Your task to perform on an android device: turn off sleep mode Image 0: 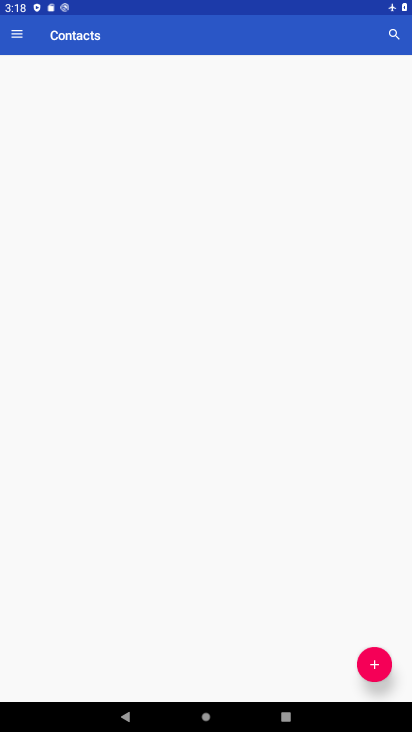
Step 0: drag from (323, 673) to (318, 96)
Your task to perform on an android device: turn off sleep mode Image 1: 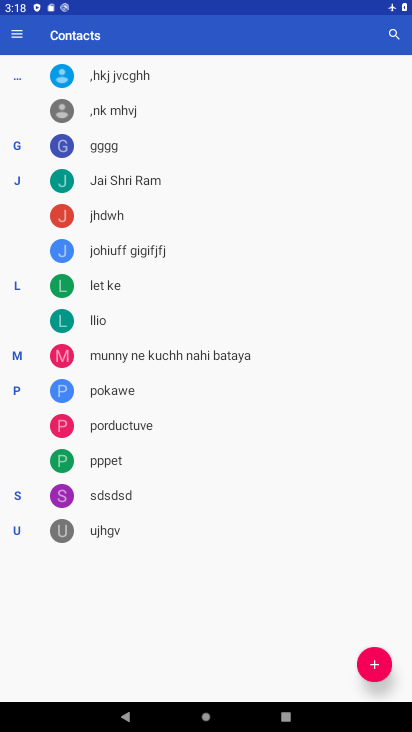
Step 1: press back button
Your task to perform on an android device: turn off sleep mode Image 2: 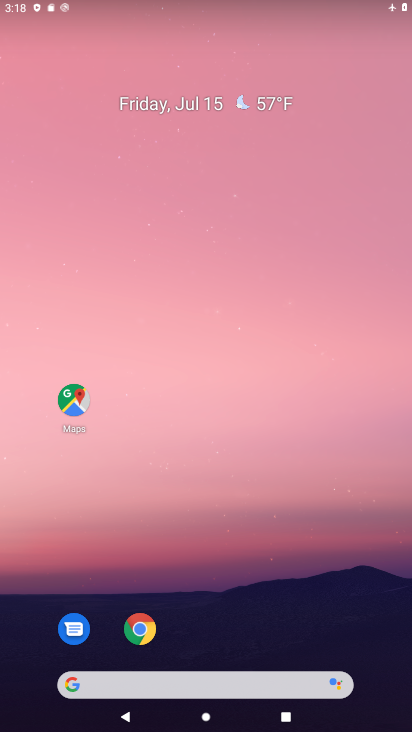
Step 2: drag from (258, 670) to (221, 63)
Your task to perform on an android device: turn off sleep mode Image 3: 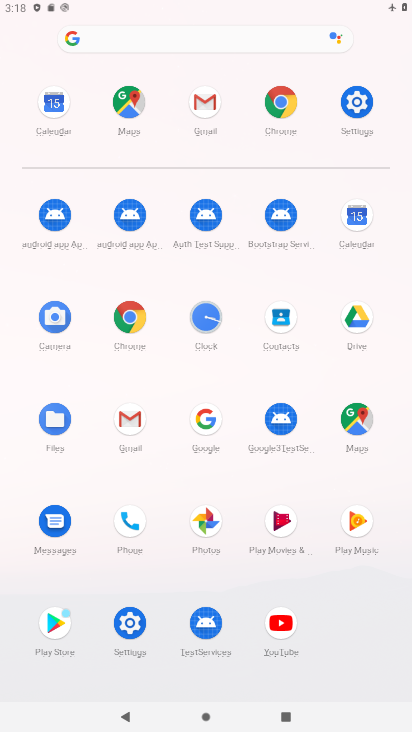
Step 3: click (352, 106)
Your task to perform on an android device: turn off sleep mode Image 4: 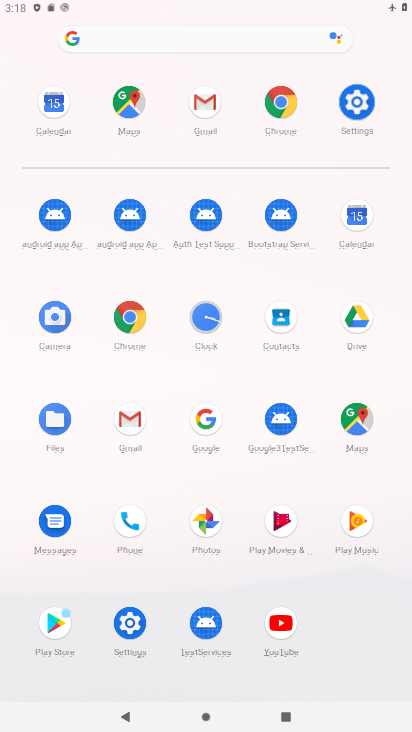
Step 4: click (359, 107)
Your task to perform on an android device: turn off sleep mode Image 5: 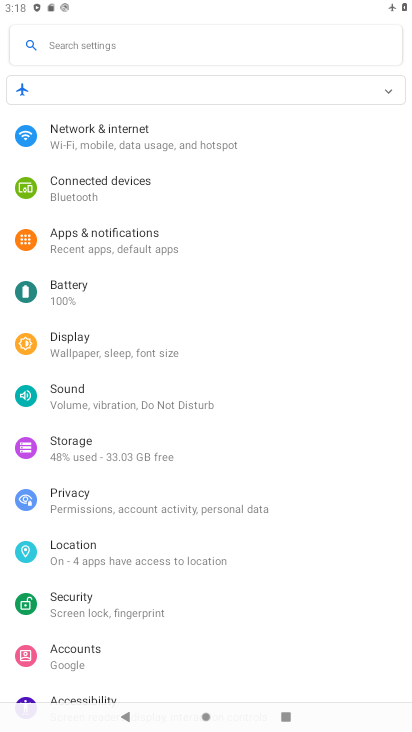
Step 5: click (77, 353)
Your task to perform on an android device: turn off sleep mode Image 6: 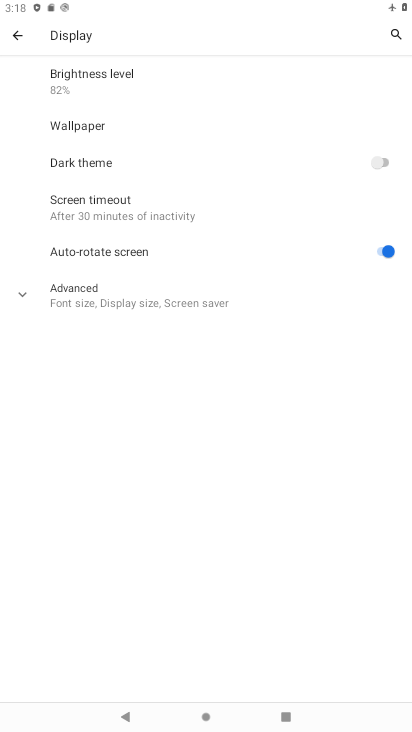
Step 6: click (89, 207)
Your task to perform on an android device: turn off sleep mode Image 7: 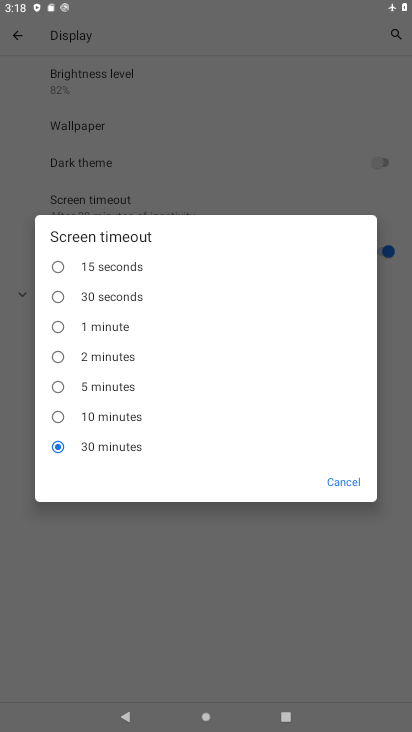
Step 7: click (195, 107)
Your task to perform on an android device: turn off sleep mode Image 8: 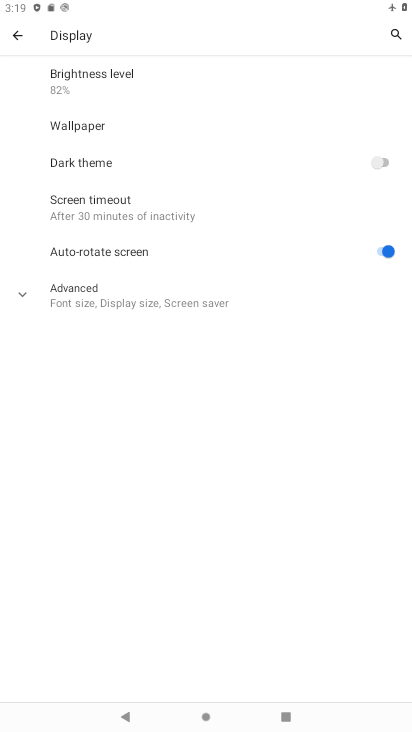
Step 8: click (91, 210)
Your task to perform on an android device: turn off sleep mode Image 9: 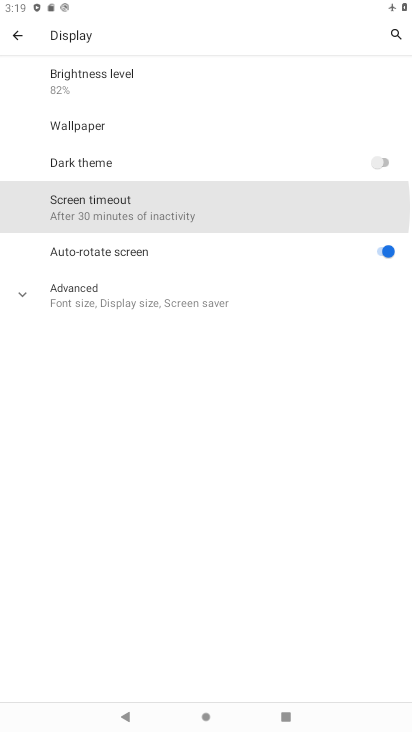
Step 9: click (97, 212)
Your task to perform on an android device: turn off sleep mode Image 10: 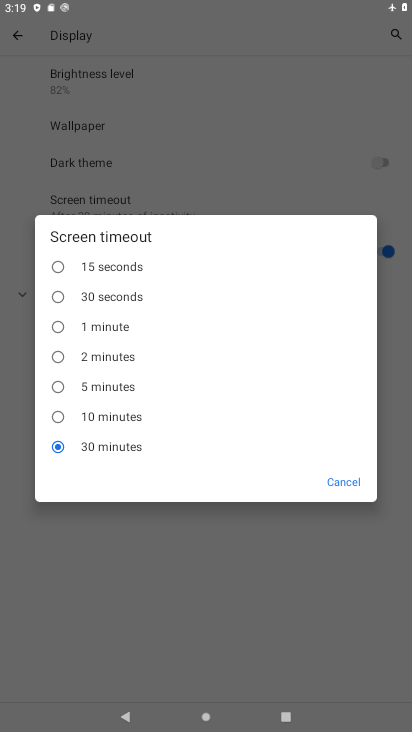
Step 10: task complete